Your task to perform on an android device: Open Youtube and go to "Your channel" Image 0: 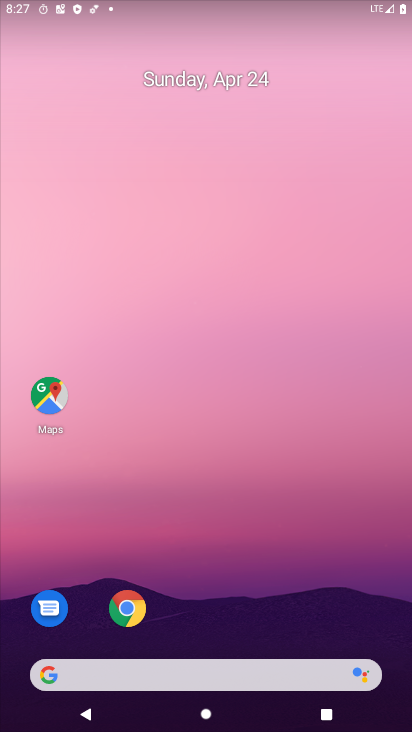
Step 0: drag from (291, 591) to (305, 0)
Your task to perform on an android device: Open Youtube and go to "Your channel" Image 1: 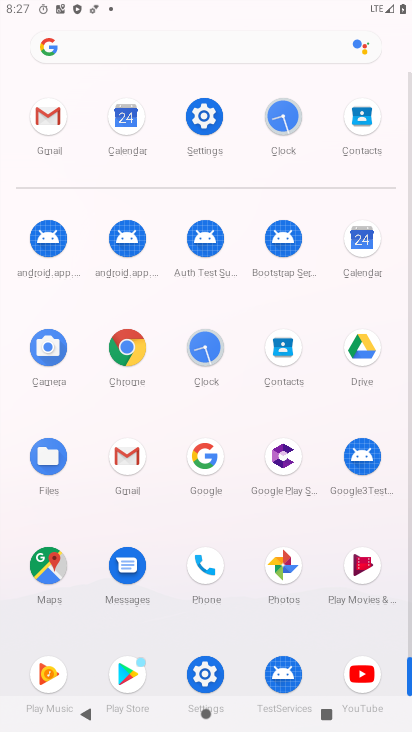
Step 1: click (357, 661)
Your task to perform on an android device: Open Youtube and go to "Your channel" Image 2: 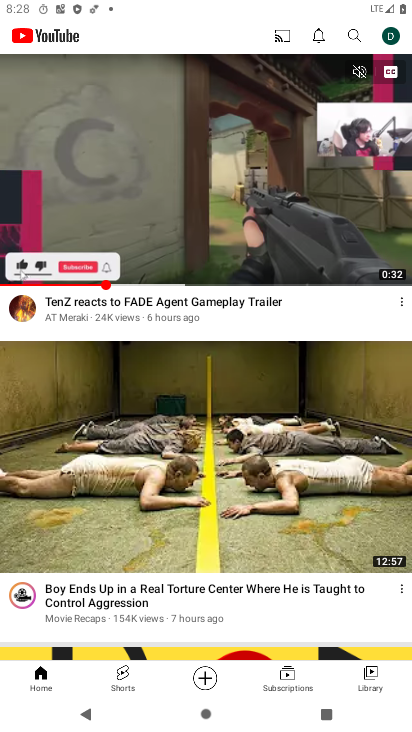
Step 2: click (388, 36)
Your task to perform on an android device: Open Youtube and go to "Your channel" Image 3: 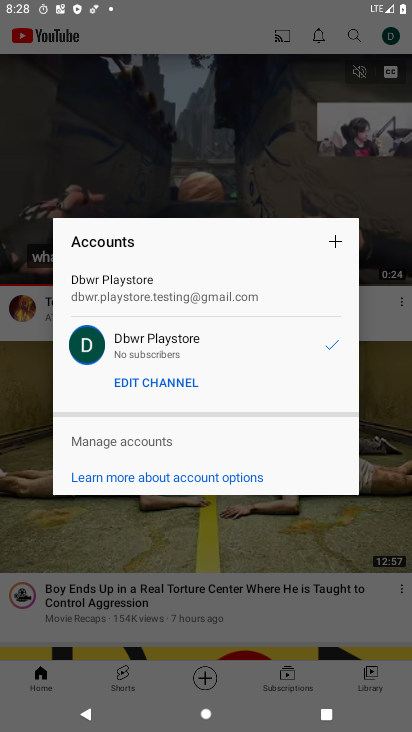
Step 3: click (388, 35)
Your task to perform on an android device: Open Youtube and go to "Your channel" Image 4: 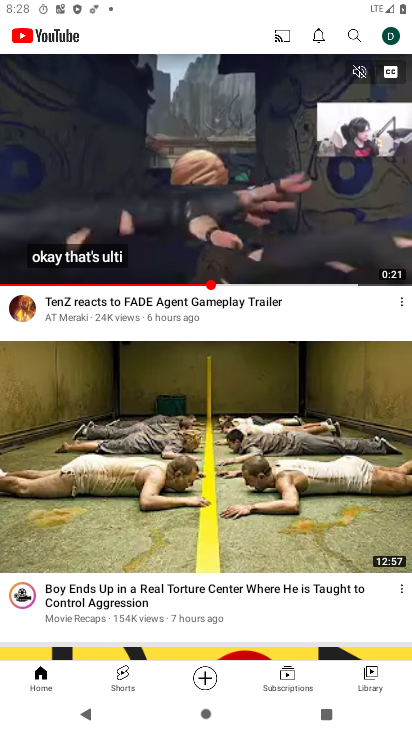
Step 4: click (388, 35)
Your task to perform on an android device: Open Youtube and go to "Your channel" Image 5: 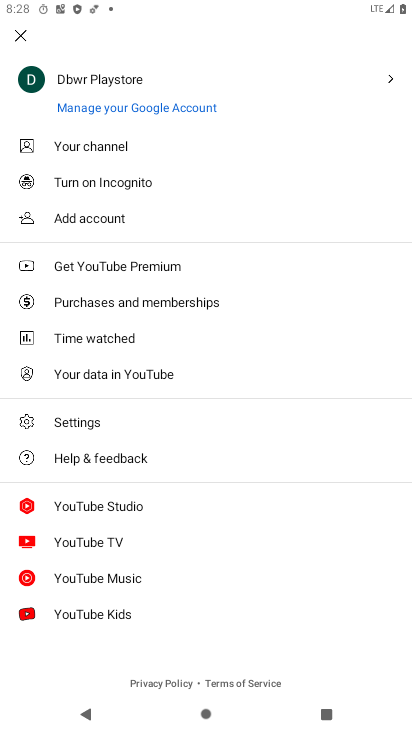
Step 5: click (93, 147)
Your task to perform on an android device: Open Youtube and go to "Your channel" Image 6: 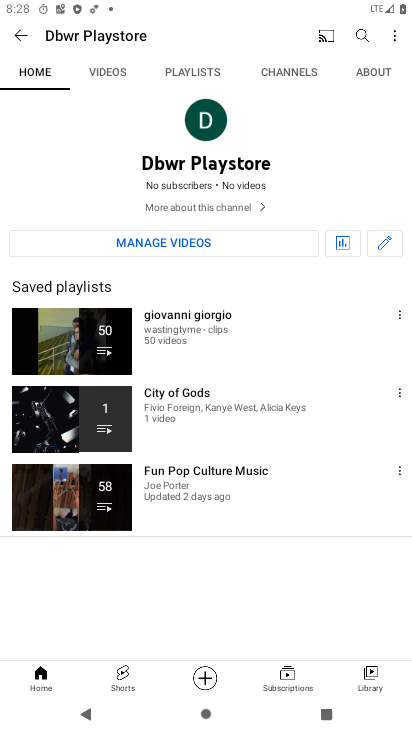
Step 6: task complete